Your task to perform on an android device: Open the map Image 0: 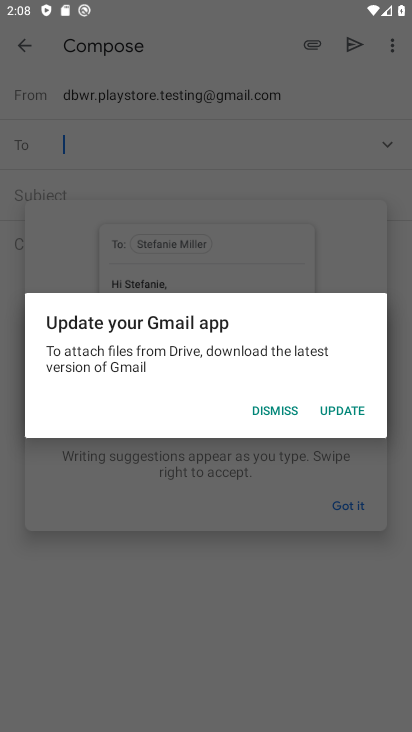
Step 0: press home button
Your task to perform on an android device: Open the map Image 1: 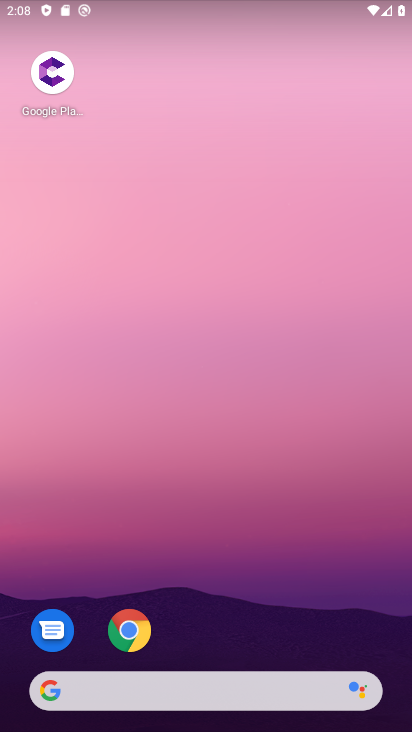
Step 1: drag from (290, 614) to (375, 292)
Your task to perform on an android device: Open the map Image 2: 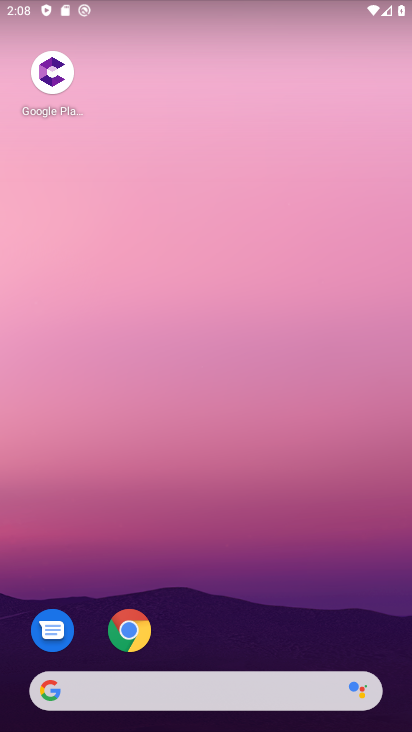
Step 2: drag from (355, 594) to (397, 322)
Your task to perform on an android device: Open the map Image 3: 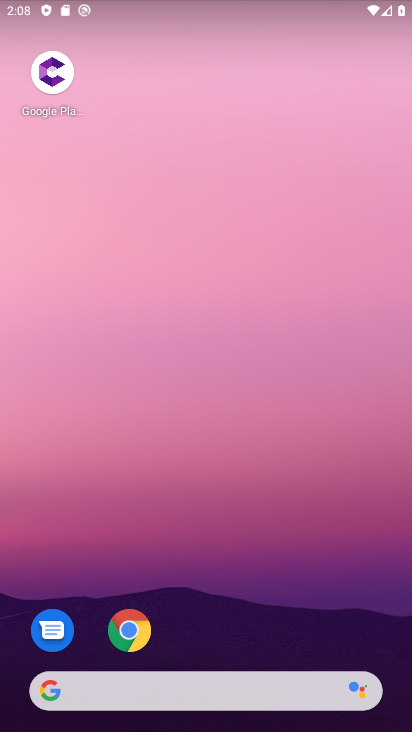
Step 3: drag from (350, 617) to (402, 187)
Your task to perform on an android device: Open the map Image 4: 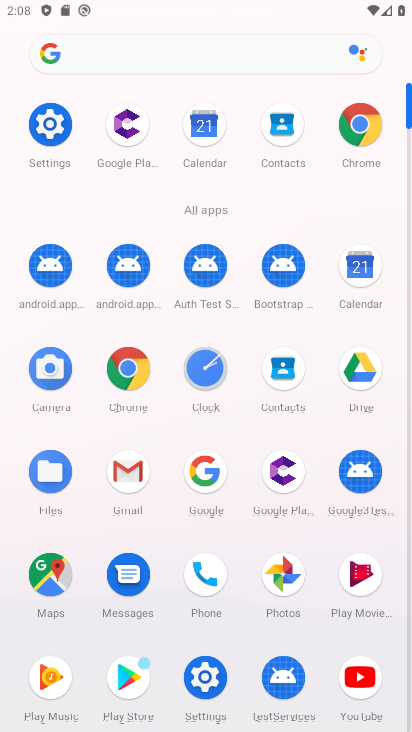
Step 4: click (27, 574)
Your task to perform on an android device: Open the map Image 5: 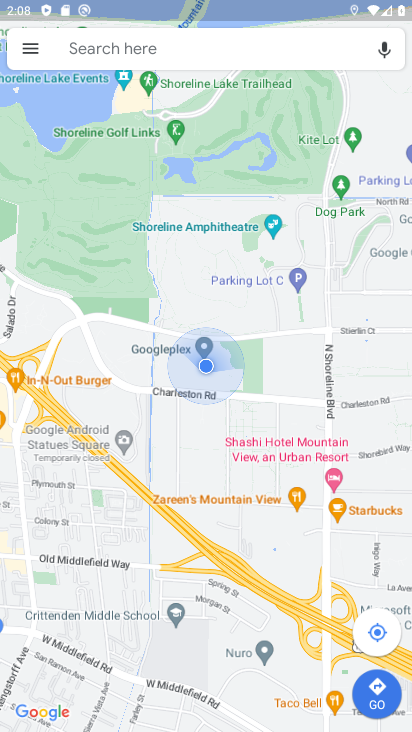
Step 5: task complete